Your task to perform on an android device: allow cookies in the chrome app Image 0: 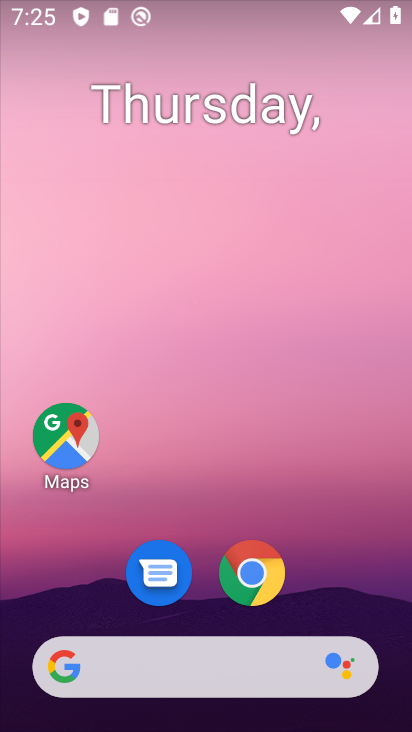
Step 0: drag from (334, 565) to (322, 95)
Your task to perform on an android device: allow cookies in the chrome app Image 1: 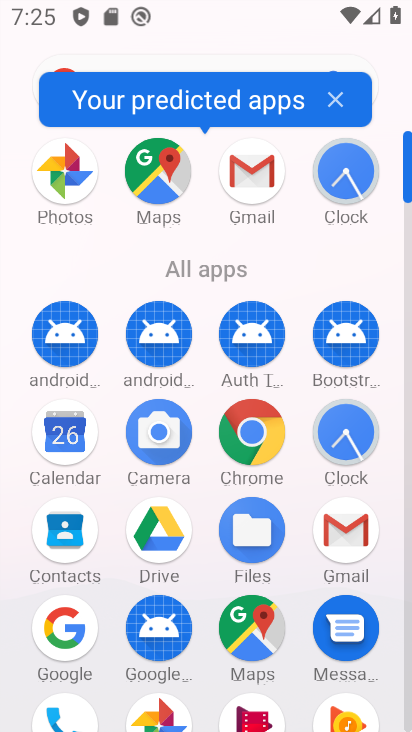
Step 1: click (262, 446)
Your task to perform on an android device: allow cookies in the chrome app Image 2: 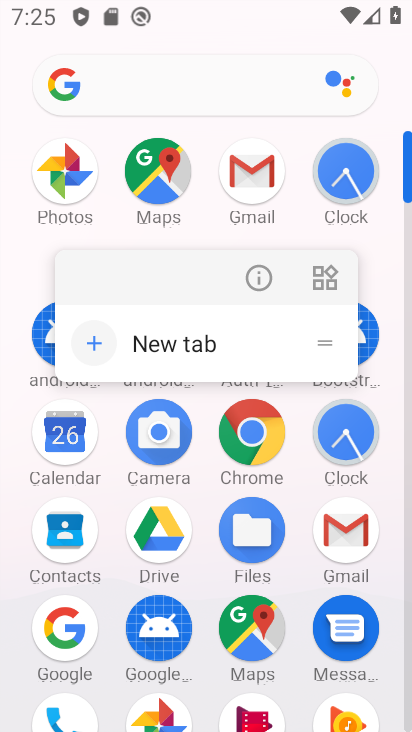
Step 2: click (263, 443)
Your task to perform on an android device: allow cookies in the chrome app Image 3: 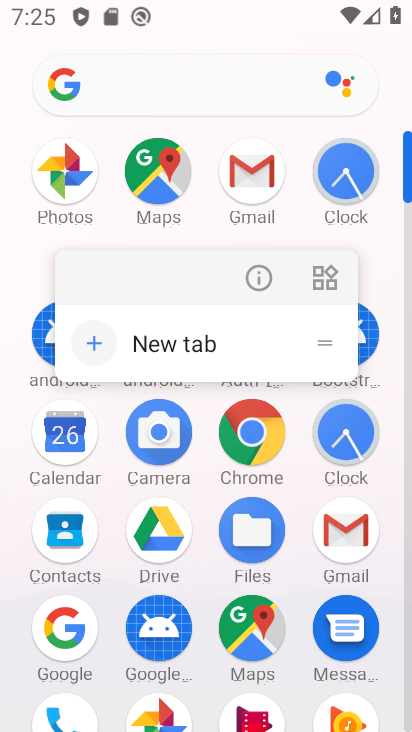
Step 3: click (270, 457)
Your task to perform on an android device: allow cookies in the chrome app Image 4: 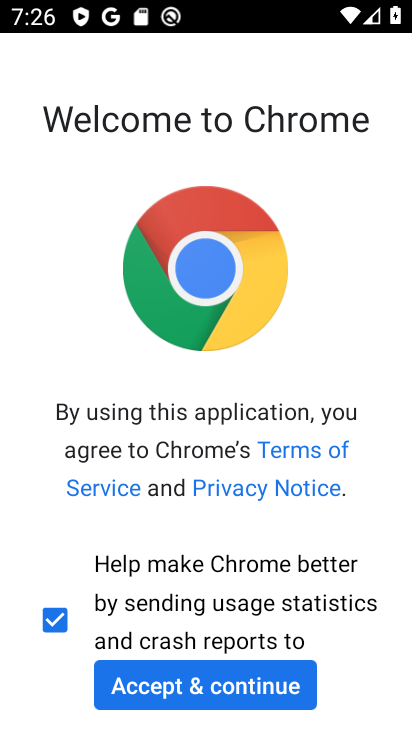
Step 4: click (295, 676)
Your task to perform on an android device: allow cookies in the chrome app Image 5: 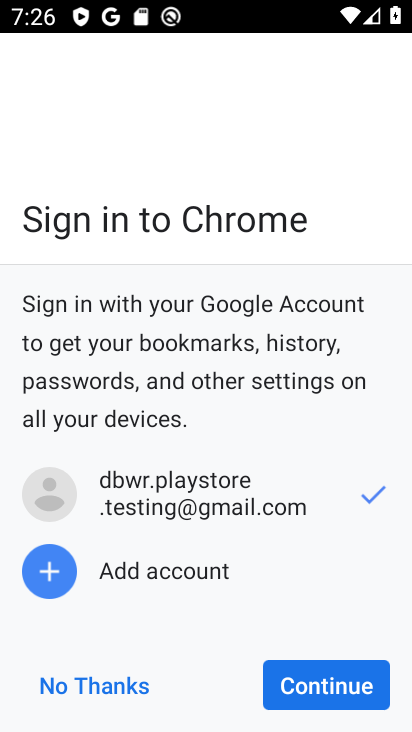
Step 5: click (270, 688)
Your task to perform on an android device: allow cookies in the chrome app Image 6: 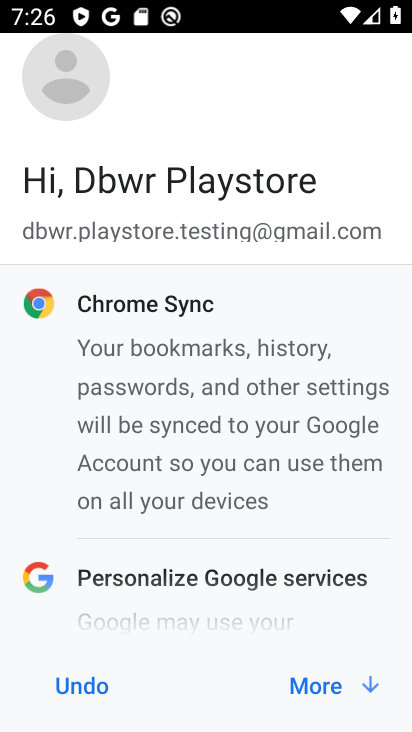
Step 6: click (351, 684)
Your task to perform on an android device: allow cookies in the chrome app Image 7: 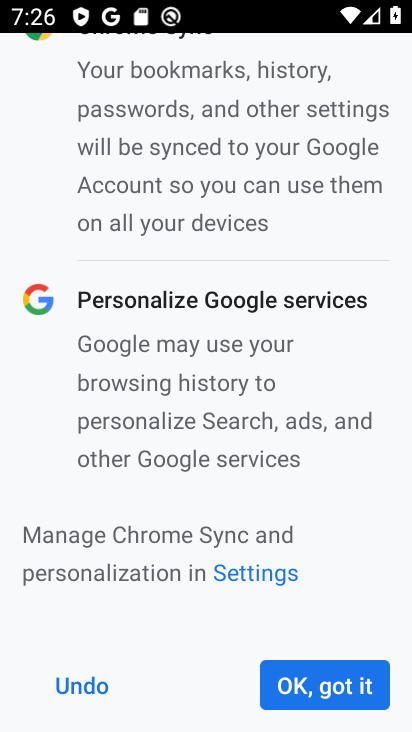
Step 7: click (351, 684)
Your task to perform on an android device: allow cookies in the chrome app Image 8: 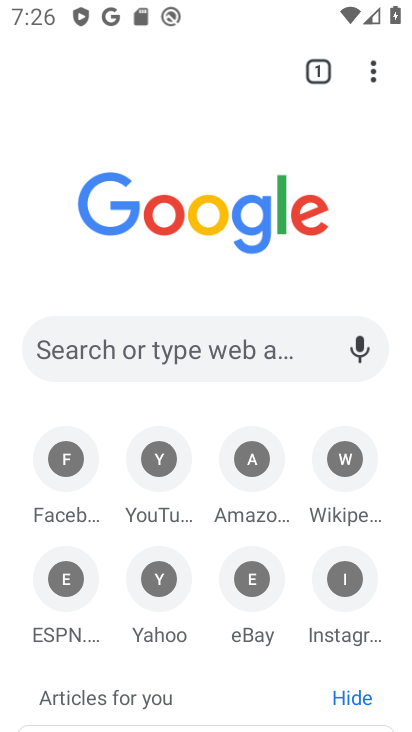
Step 8: drag from (372, 72) to (218, 614)
Your task to perform on an android device: allow cookies in the chrome app Image 9: 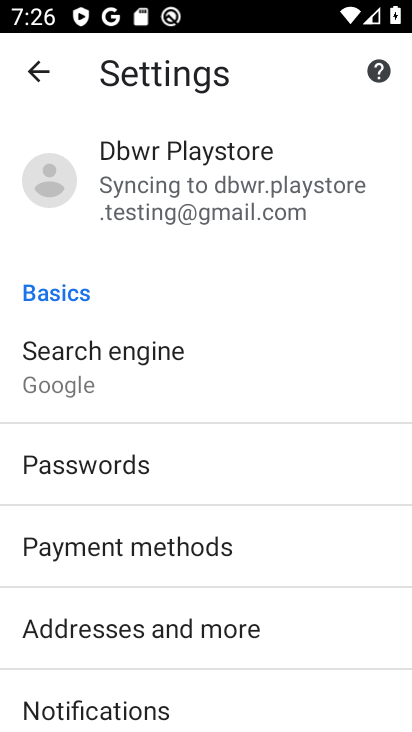
Step 9: drag from (292, 619) to (315, 240)
Your task to perform on an android device: allow cookies in the chrome app Image 10: 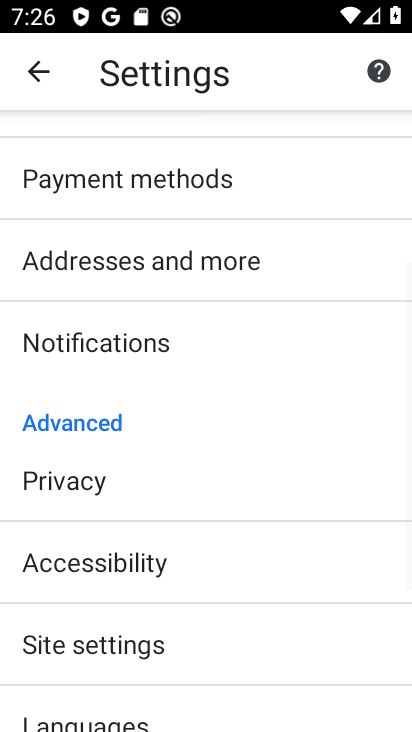
Step 10: drag from (283, 618) to (303, 336)
Your task to perform on an android device: allow cookies in the chrome app Image 11: 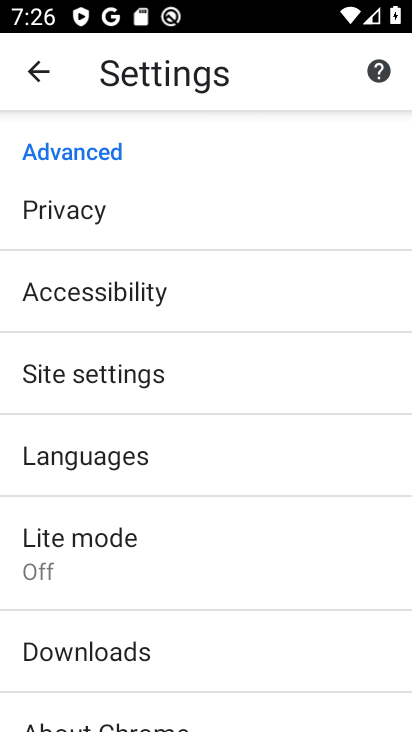
Step 11: click (163, 376)
Your task to perform on an android device: allow cookies in the chrome app Image 12: 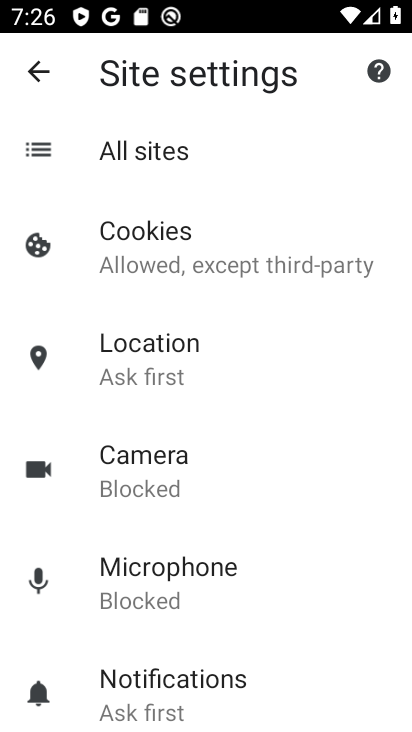
Step 12: click (188, 259)
Your task to perform on an android device: allow cookies in the chrome app Image 13: 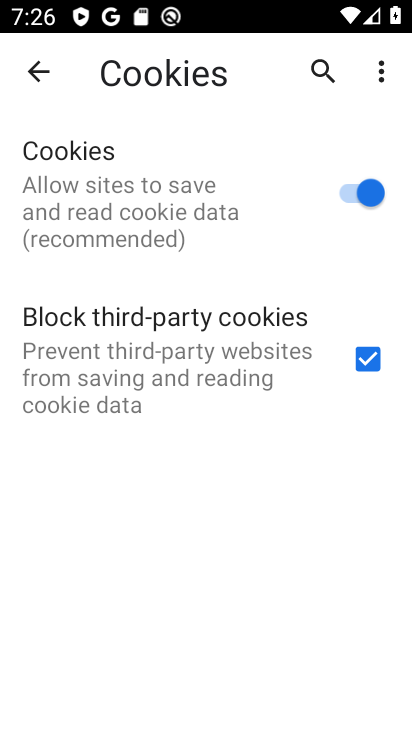
Step 13: task complete